Your task to perform on an android device: turn notification dots on Image 0: 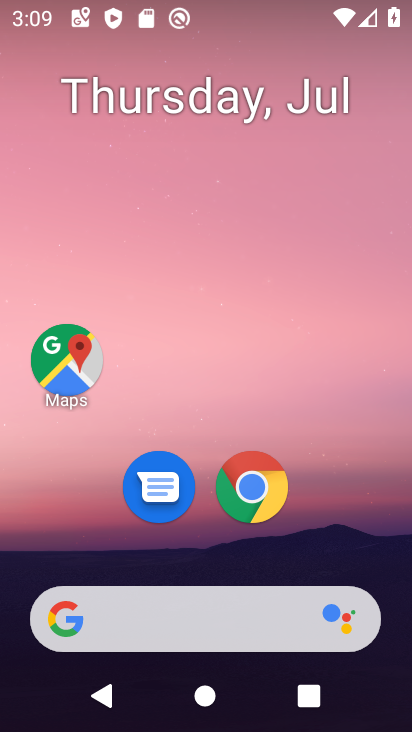
Step 0: drag from (202, 490) to (191, 22)
Your task to perform on an android device: turn notification dots on Image 1: 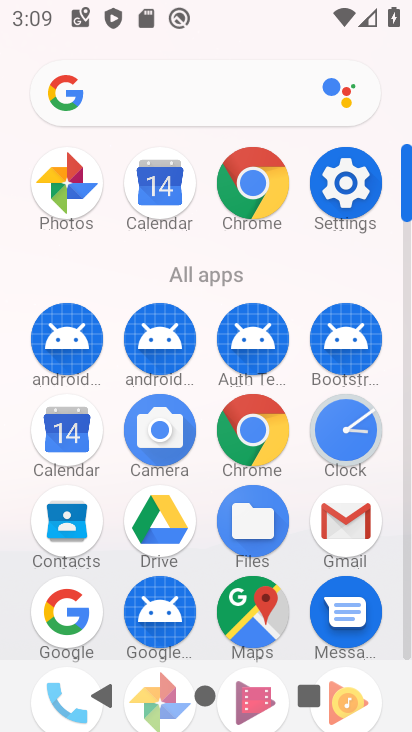
Step 1: click (332, 178)
Your task to perform on an android device: turn notification dots on Image 2: 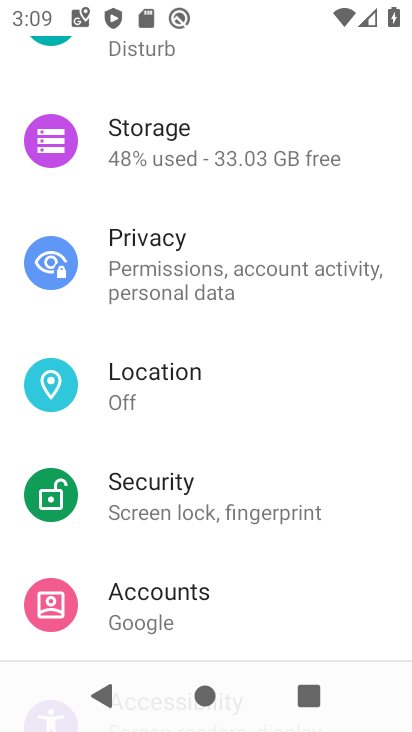
Step 2: drag from (204, 161) to (159, 572)
Your task to perform on an android device: turn notification dots on Image 3: 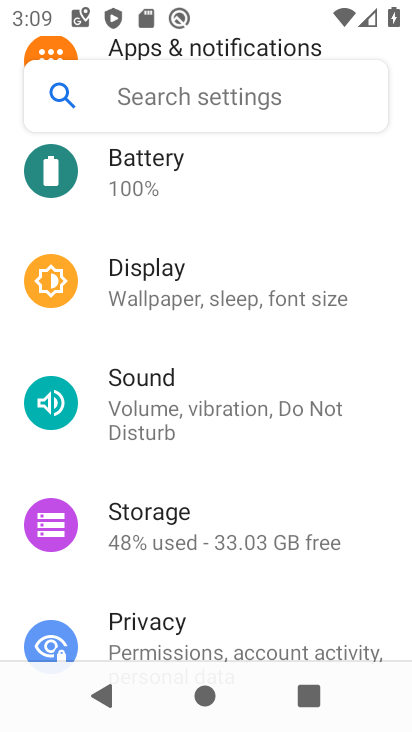
Step 3: drag from (222, 214) to (198, 651)
Your task to perform on an android device: turn notification dots on Image 4: 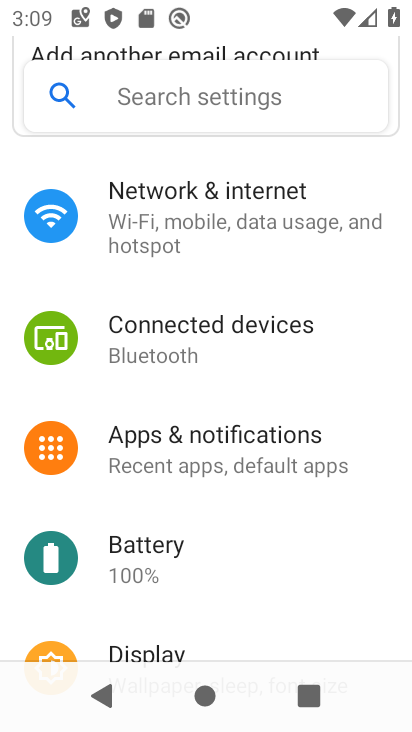
Step 4: click (153, 449)
Your task to perform on an android device: turn notification dots on Image 5: 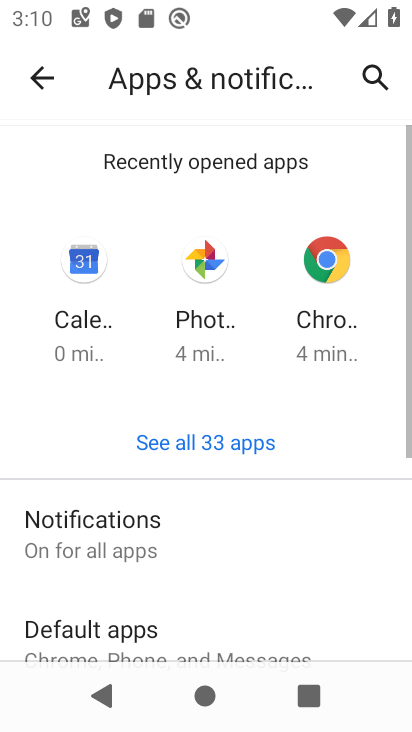
Step 5: click (111, 539)
Your task to perform on an android device: turn notification dots on Image 6: 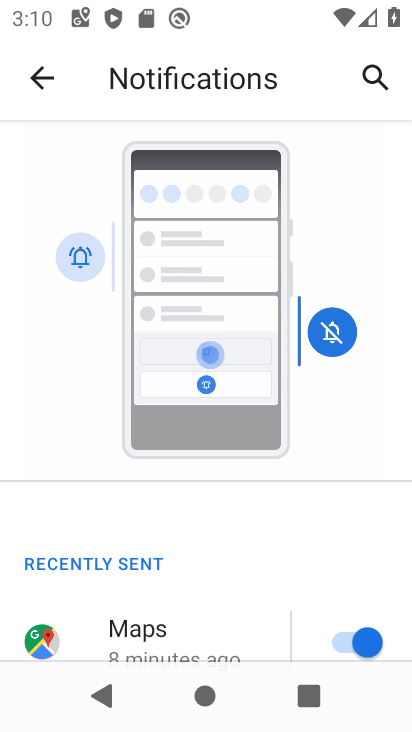
Step 6: drag from (145, 625) to (232, 2)
Your task to perform on an android device: turn notification dots on Image 7: 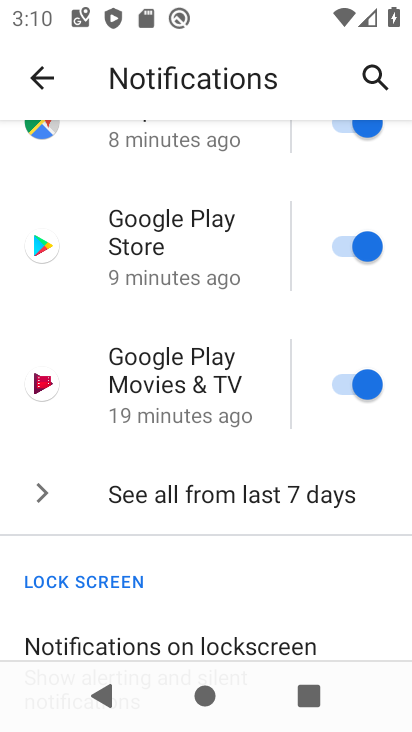
Step 7: drag from (181, 458) to (228, 0)
Your task to perform on an android device: turn notification dots on Image 8: 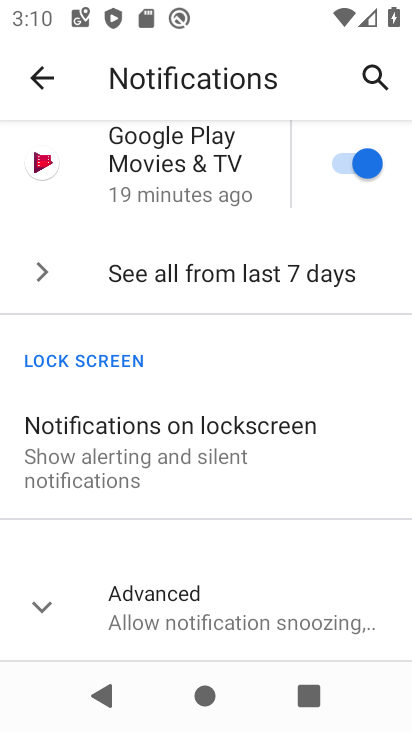
Step 8: click (134, 593)
Your task to perform on an android device: turn notification dots on Image 9: 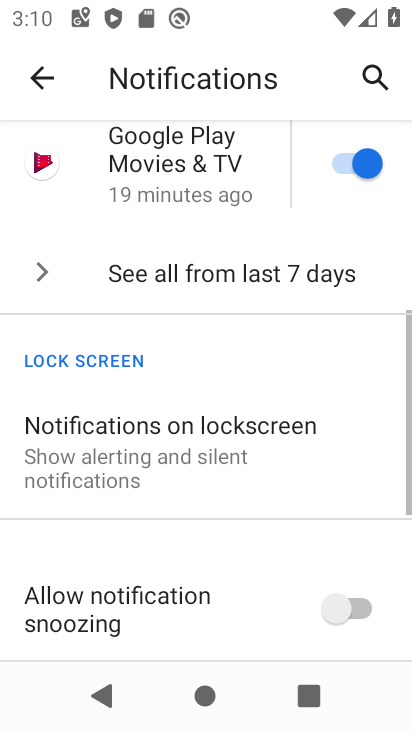
Step 9: task complete